Your task to perform on an android device: Open notification settings Image 0: 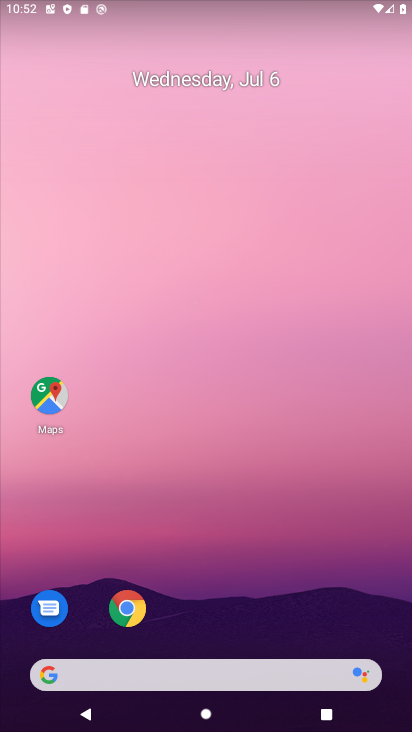
Step 0: drag from (206, 637) to (203, 238)
Your task to perform on an android device: Open notification settings Image 1: 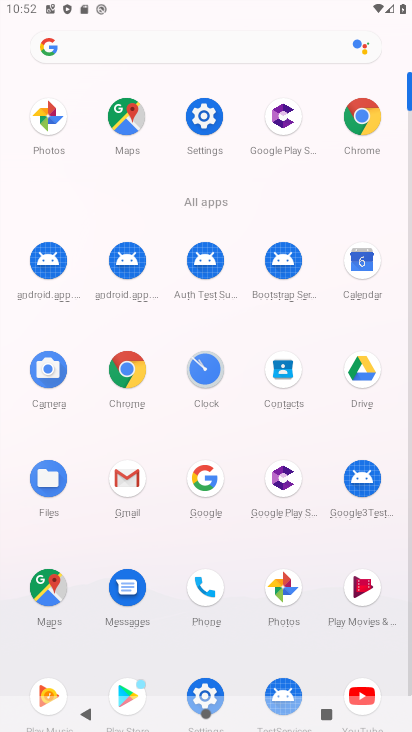
Step 1: click (210, 125)
Your task to perform on an android device: Open notification settings Image 2: 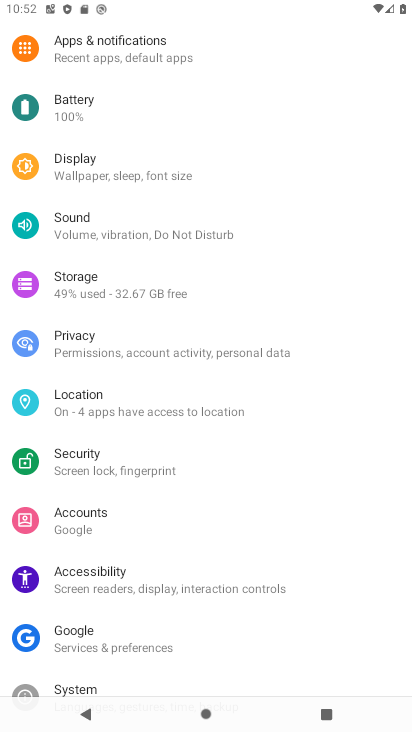
Step 2: click (95, 49)
Your task to perform on an android device: Open notification settings Image 3: 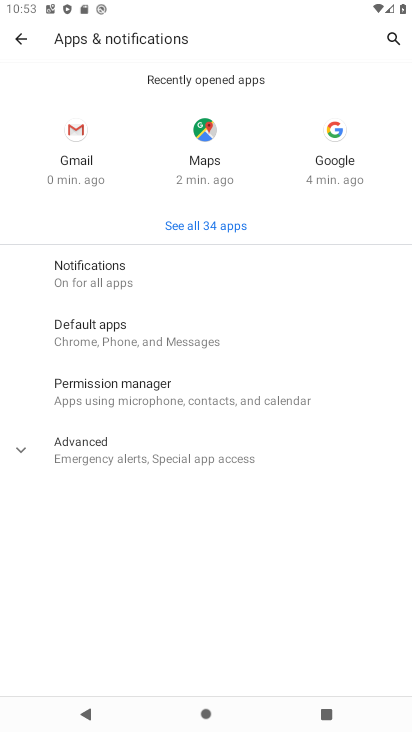
Step 3: click (175, 434)
Your task to perform on an android device: Open notification settings Image 4: 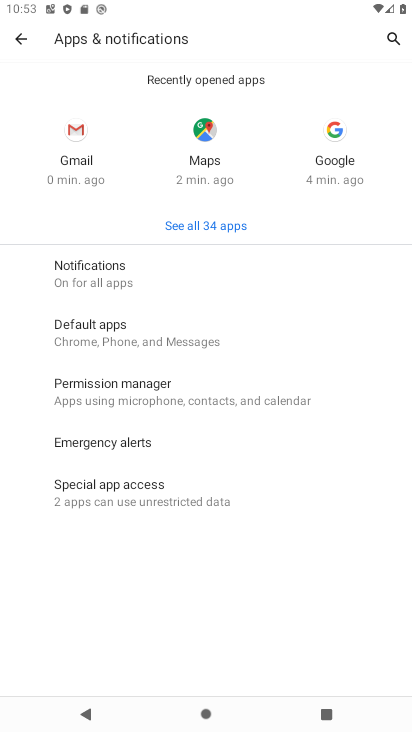
Step 4: task complete